Your task to perform on an android device: turn off priority inbox in the gmail app Image 0: 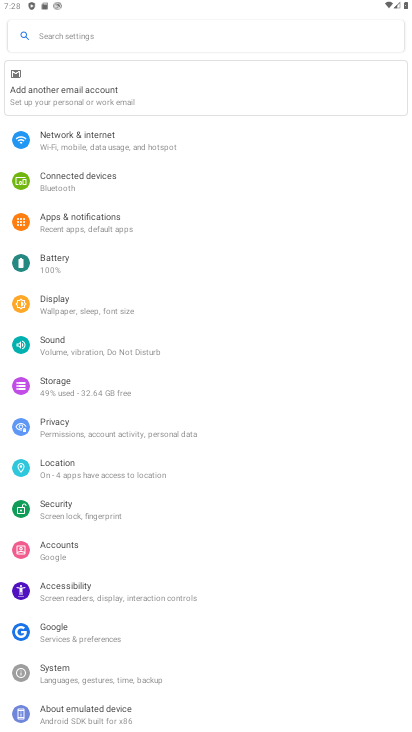
Step 0: press home button
Your task to perform on an android device: turn off priority inbox in the gmail app Image 1: 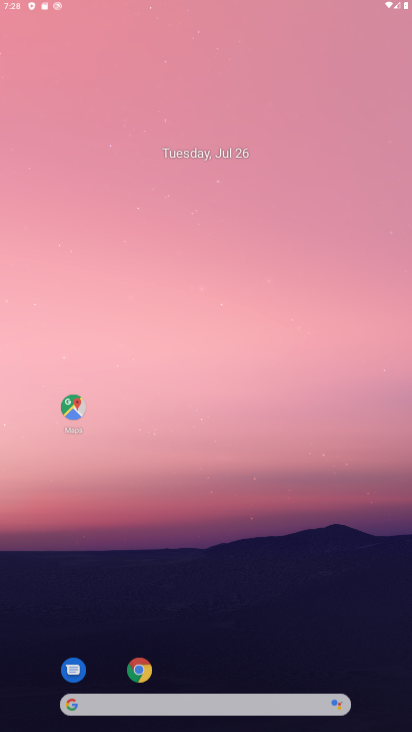
Step 1: drag from (374, 685) to (269, 0)
Your task to perform on an android device: turn off priority inbox in the gmail app Image 2: 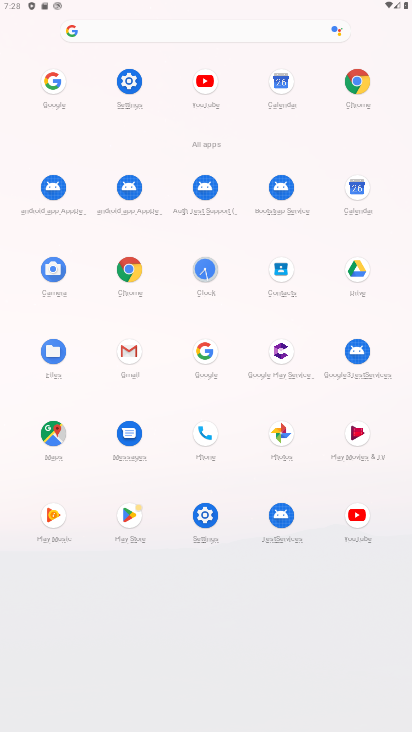
Step 2: click (119, 359)
Your task to perform on an android device: turn off priority inbox in the gmail app Image 3: 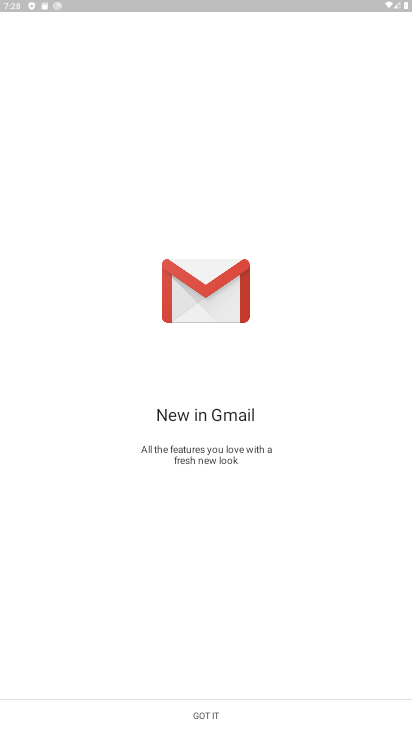
Step 3: click (187, 705)
Your task to perform on an android device: turn off priority inbox in the gmail app Image 4: 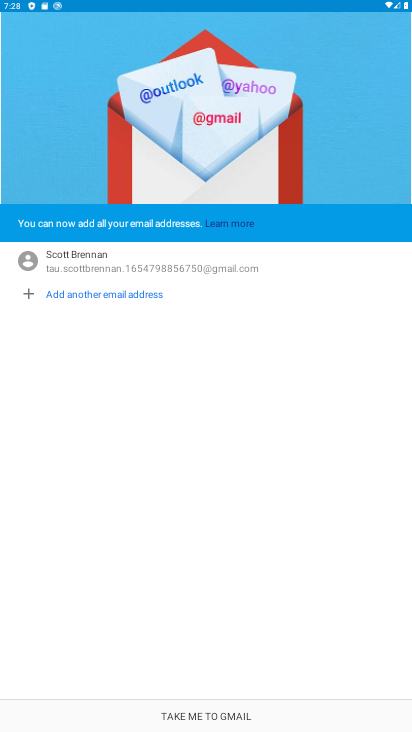
Step 4: click (187, 705)
Your task to perform on an android device: turn off priority inbox in the gmail app Image 5: 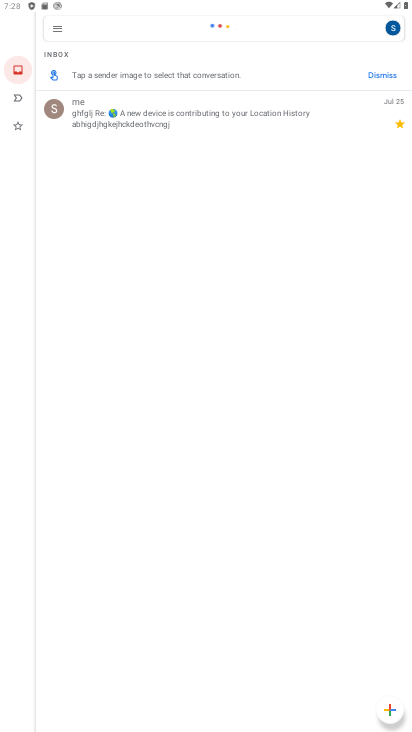
Step 5: click (52, 30)
Your task to perform on an android device: turn off priority inbox in the gmail app Image 6: 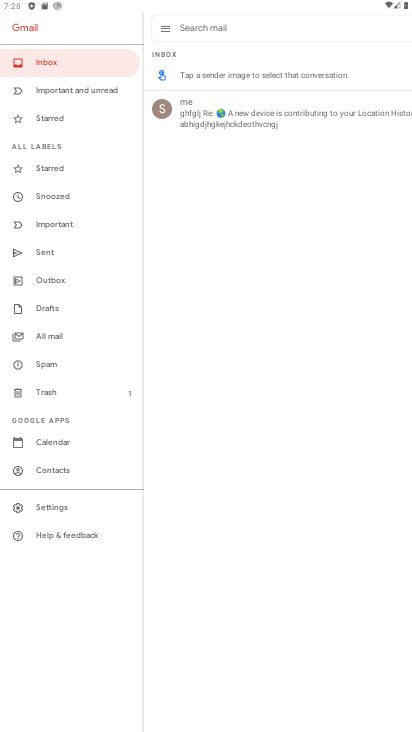
Step 6: click (75, 511)
Your task to perform on an android device: turn off priority inbox in the gmail app Image 7: 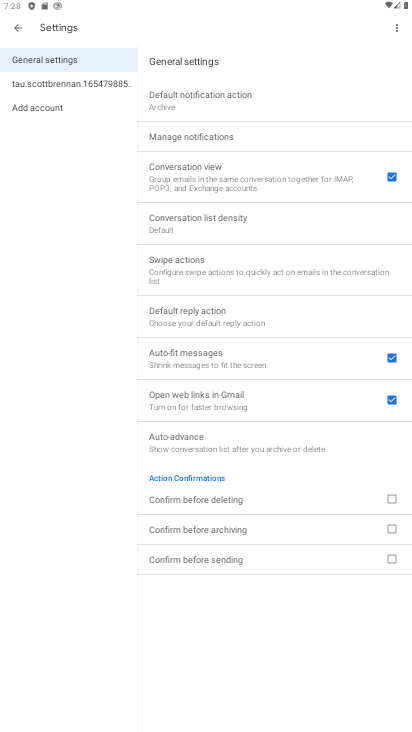
Step 7: click (55, 81)
Your task to perform on an android device: turn off priority inbox in the gmail app Image 8: 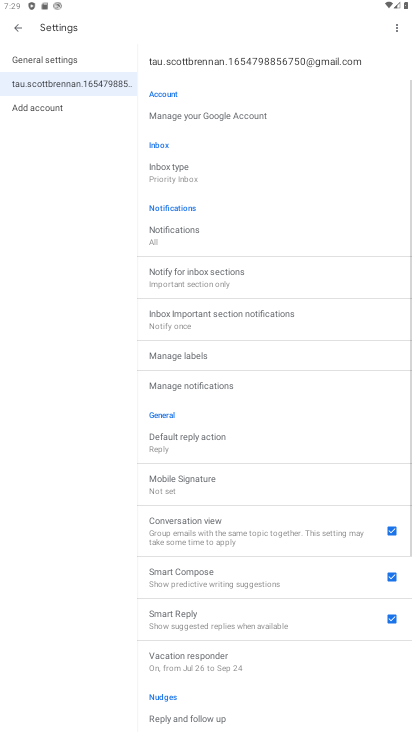
Step 8: click (208, 170)
Your task to perform on an android device: turn off priority inbox in the gmail app Image 9: 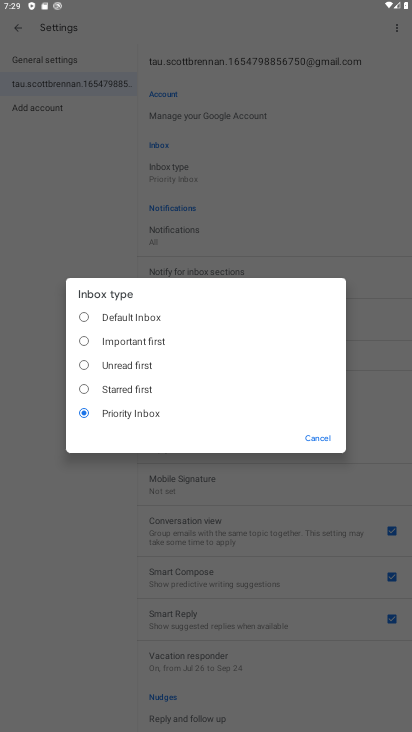
Step 9: click (144, 315)
Your task to perform on an android device: turn off priority inbox in the gmail app Image 10: 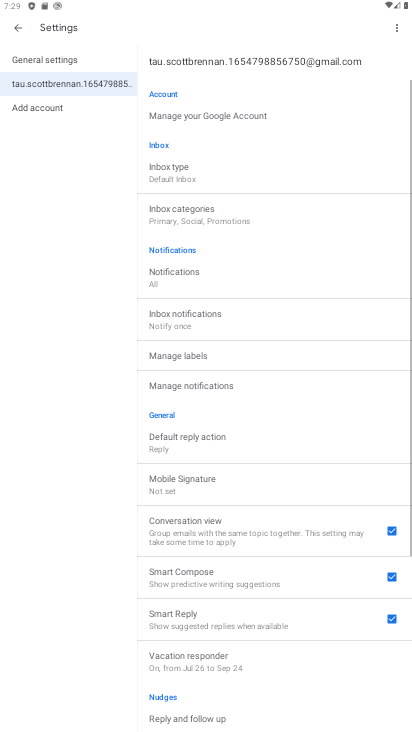
Step 10: task complete